Your task to perform on an android device: Do I have any events tomorrow? Image 0: 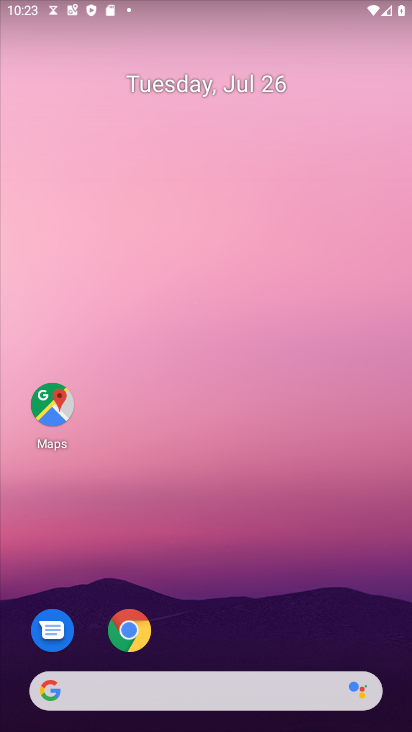
Step 0: drag from (209, 636) to (238, 125)
Your task to perform on an android device: Do I have any events tomorrow? Image 1: 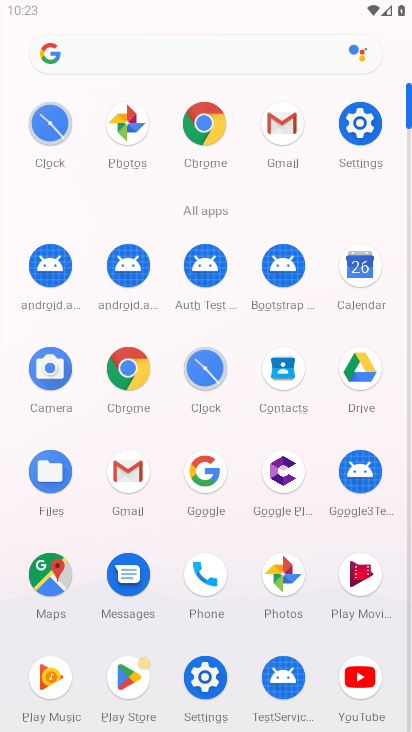
Step 1: click (360, 283)
Your task to perform on an android device: Do I have any events tomorrow? Image 2: 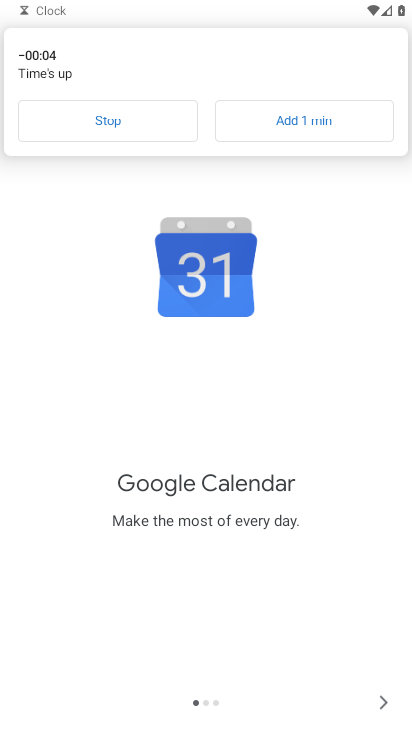
Step 2: click (127, 122)
Your task to perform on an android device: Do I have any events tomorrow? Image 3: 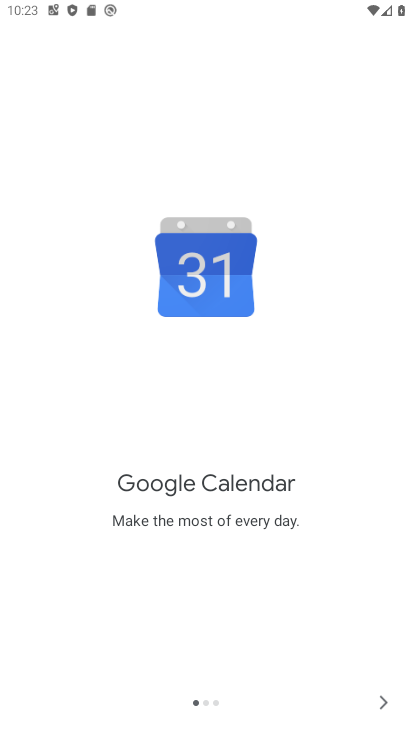
Step 3: click (384, 707)
Your task to perform on an android device: Do I have any events tomorrow? Image 4: 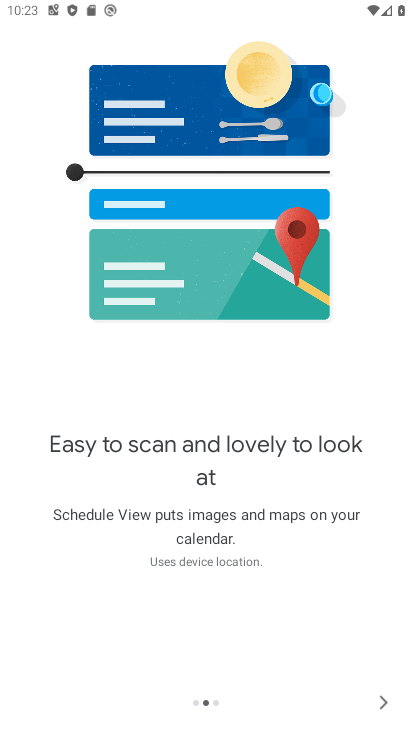
Step 4: click (384, 707)
Your task to perform on an android device: Do I have any events tomorrow? Image 5: 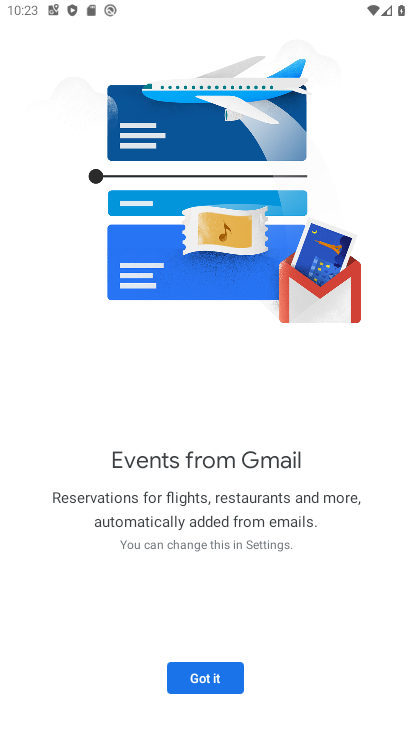
Step 5: click (187, 680)
Your task to perform on an android device: Do I have any events tomorrow? Image 6: 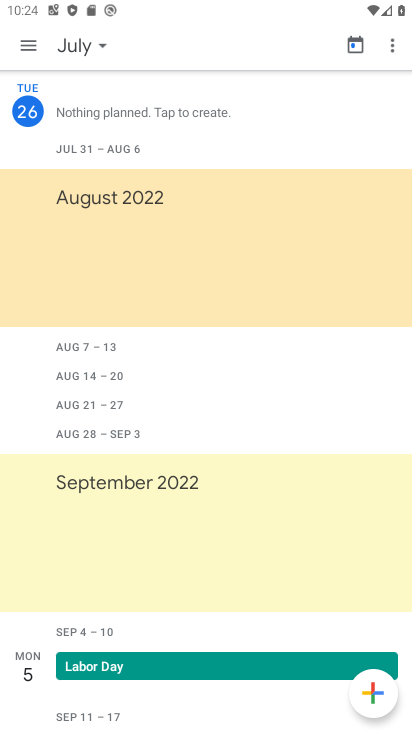
Step 6: click (67, 40)
Your task to perform on an android device: Do I have any events tomorrow? Image 7: 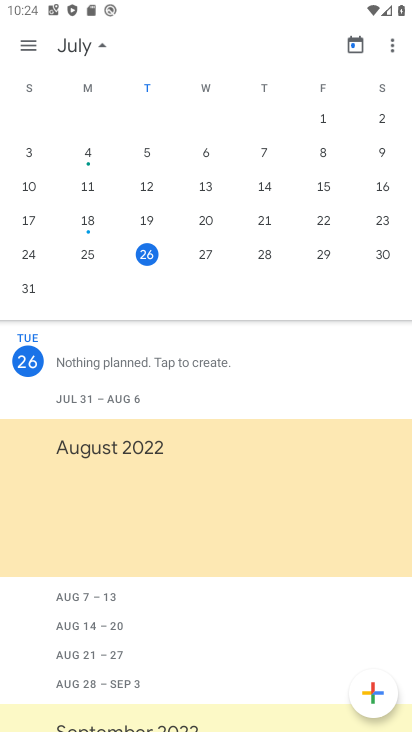
Step 7: click (203, 252)
Your task to perform on an android device: Do I have any events tomorrow? Image 8: 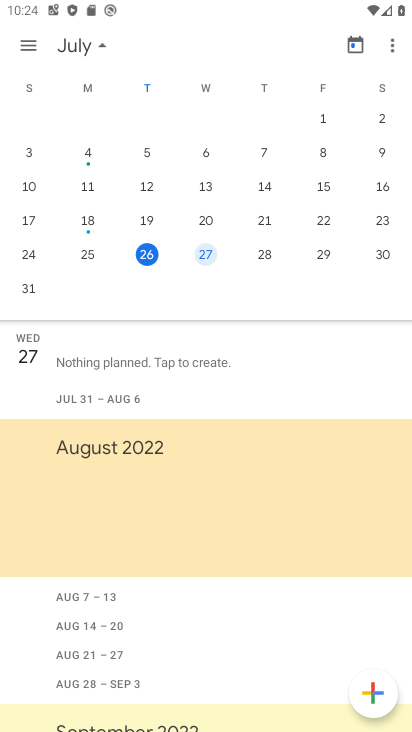
Step 8: task complete